Your task to perform on an android device: check storage Image 0: 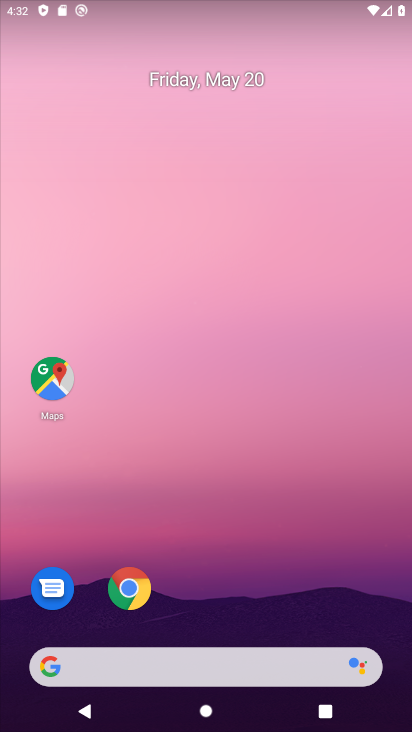
Step 0: drag from (222, 608) to (217, 184)
Your task to perform on an android device: check storage Image 1: 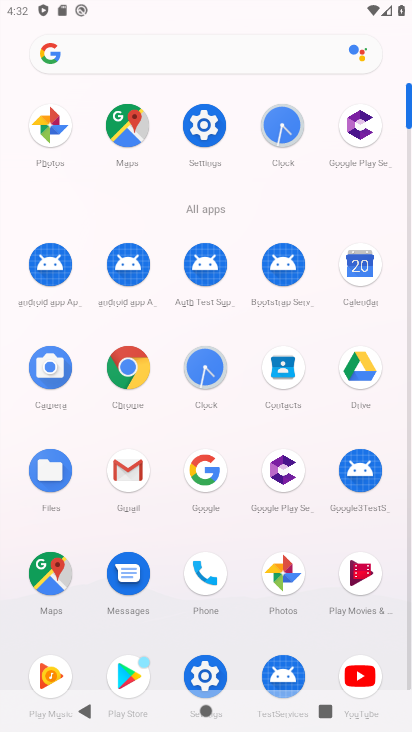
Step 1: click (209, 155)
Your task to perform on an android device: check storage Image 2: 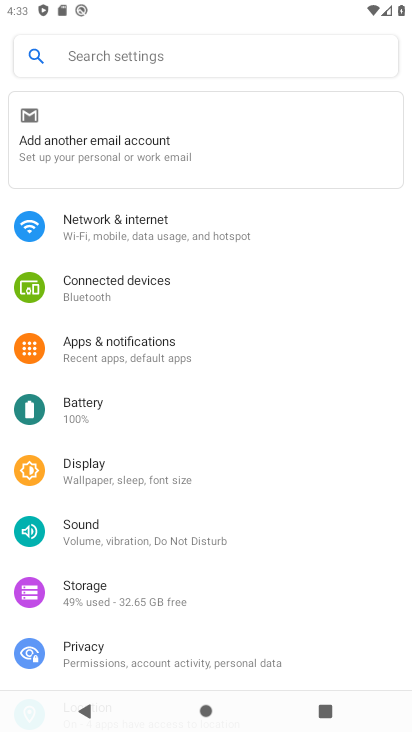
Step 2: click (114, 556)
Your task to perform on an android device: check storage Image 3: 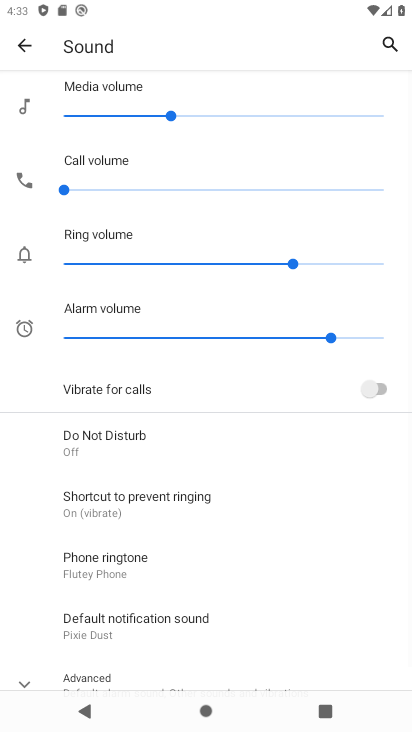
Step 3: click (10, 53)
Your task to perform on an android device: check storage Image 4: 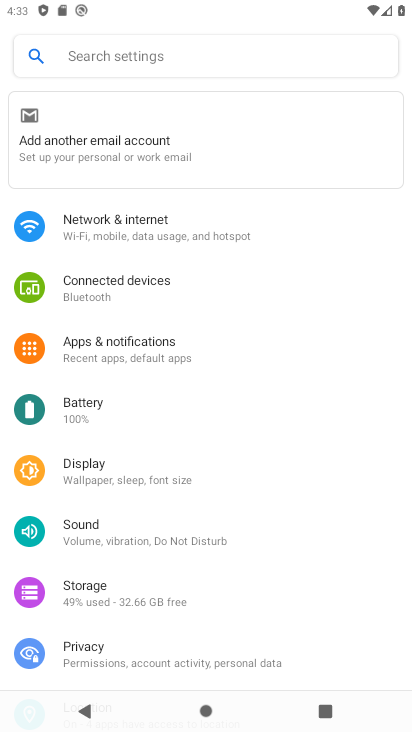
Step 4: click (89, 601)
Your task to perform on an android device: check storage Image 5: 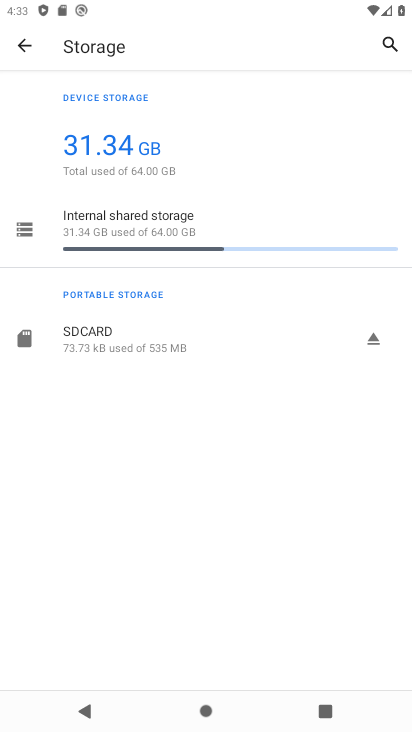
Step 5: task complete